Your task to perform on an android device: Find coffee shops on Maps Image 0: 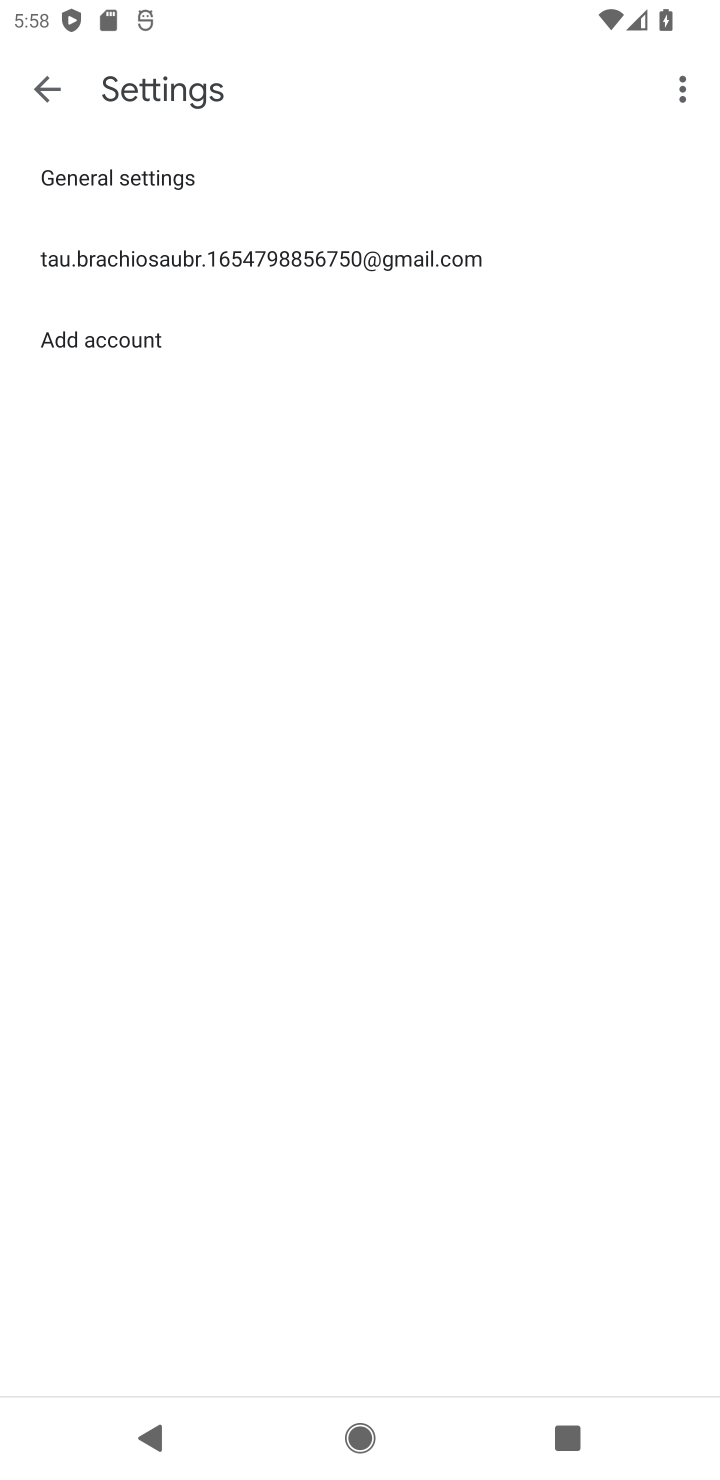
Step 0: press home button
Your task to perform on an android device: Find coffee shops on Maps Image 1: 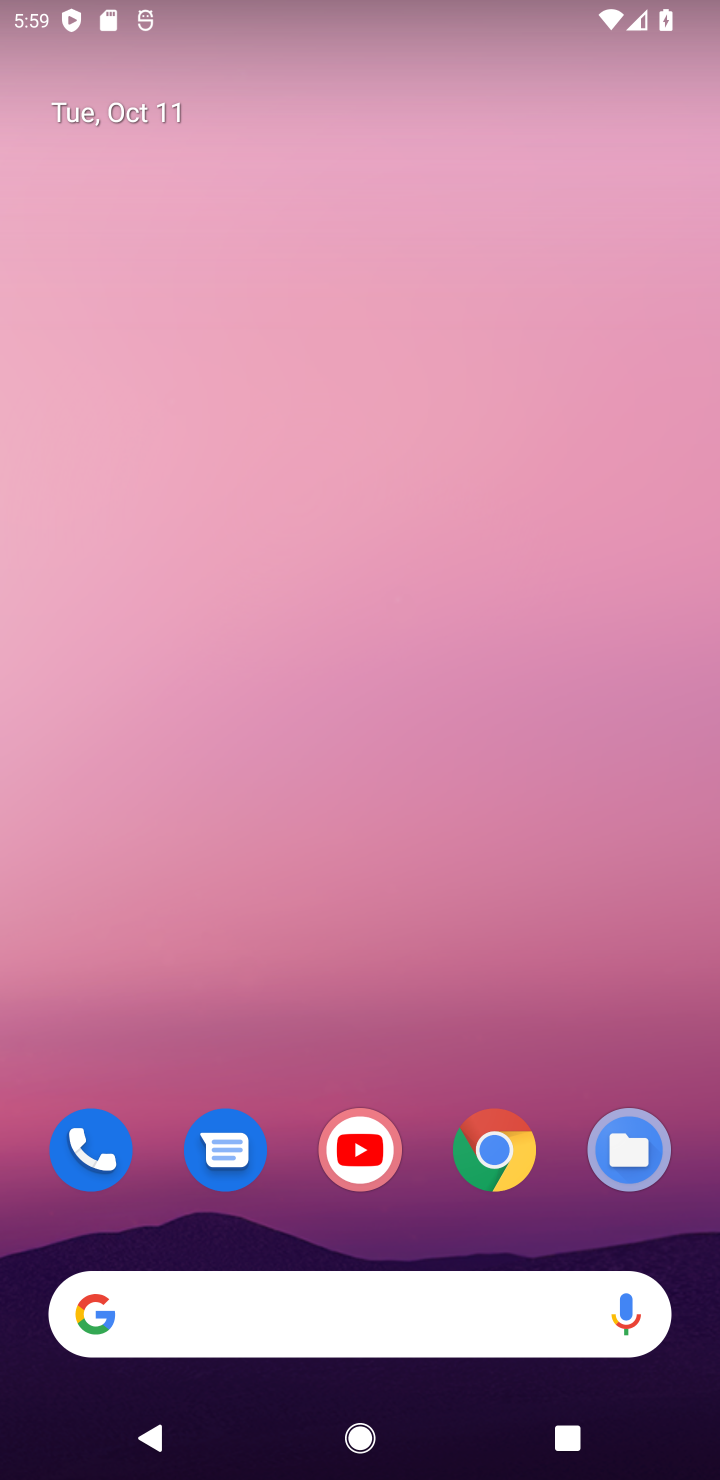
Step 1: drag from (423, 1065) to (402, 48)
Your task to perform on an android device: Find coffee shops on Maps Image 2: 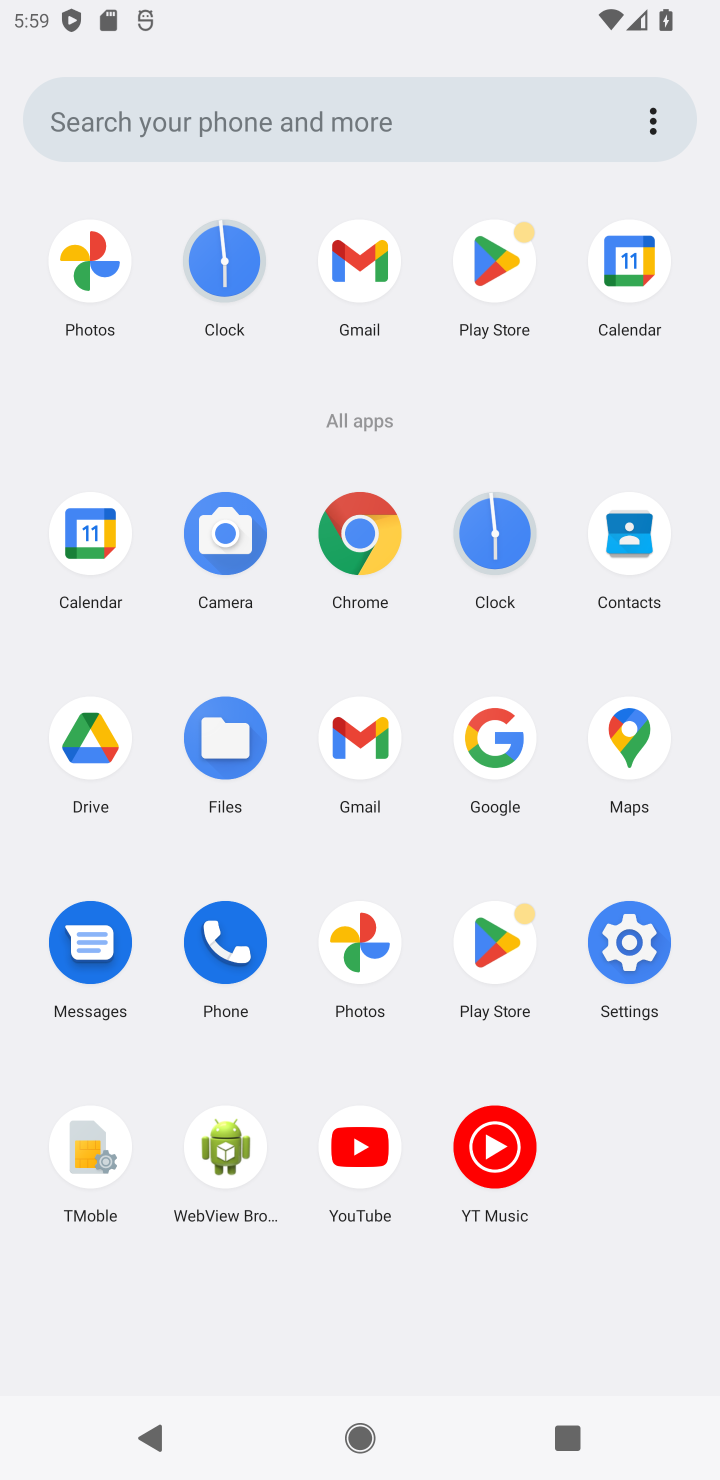
Step 2: click (636, 742)
Your task to perform on an android device: Find coffee shops on Maps Image 3: 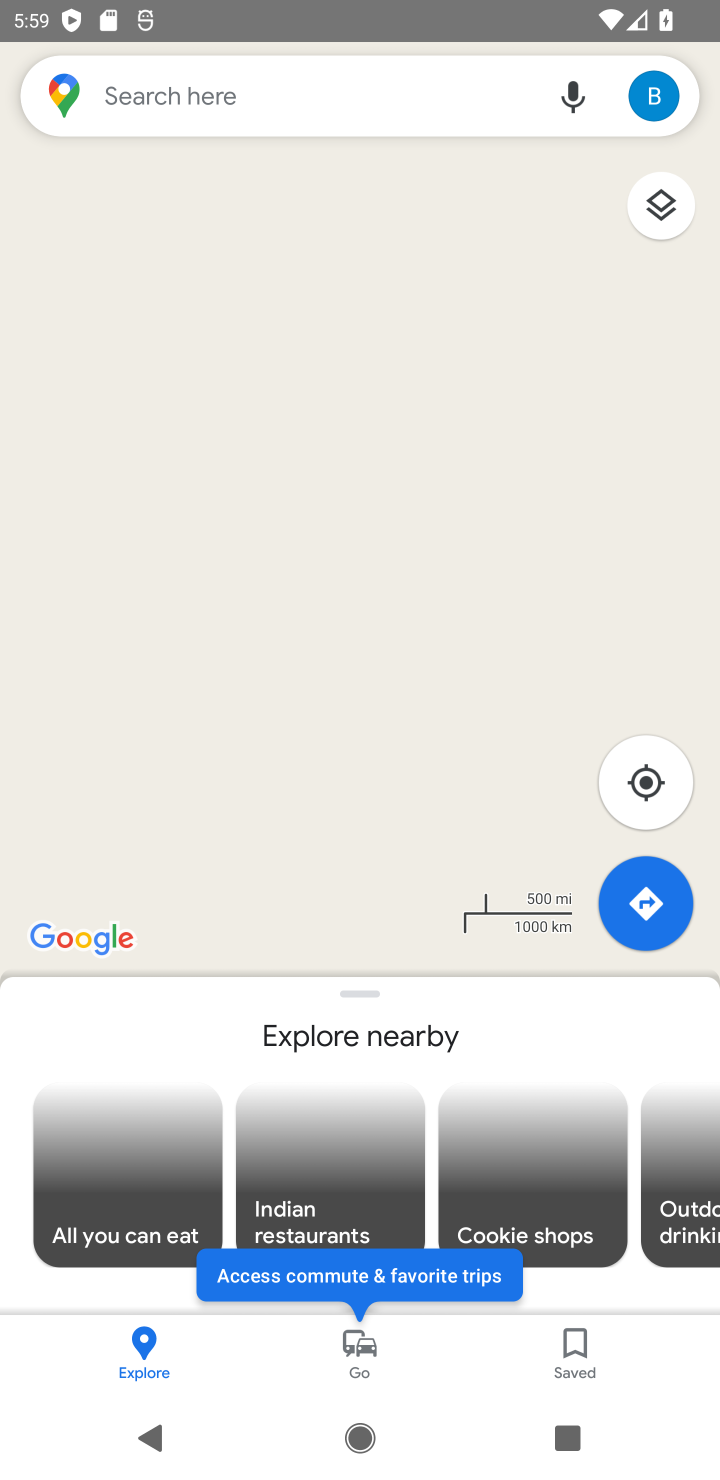
Step 3: click (189, 108)
Your task to perform on an android device: Find coffee shops on Maps Image 4: 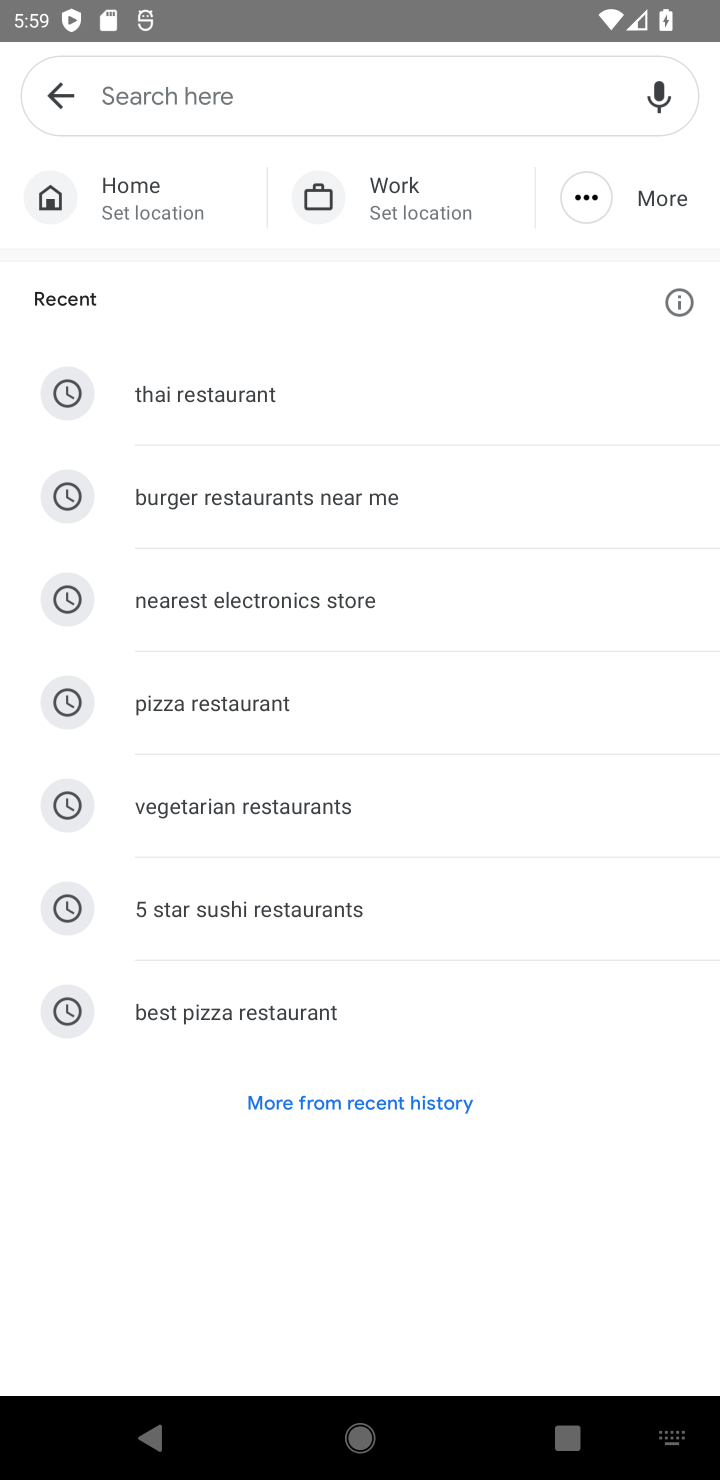
Step 4: type "coffee shop"
Your task to perform on an android device: Find coffee shops on Maps Image 5: 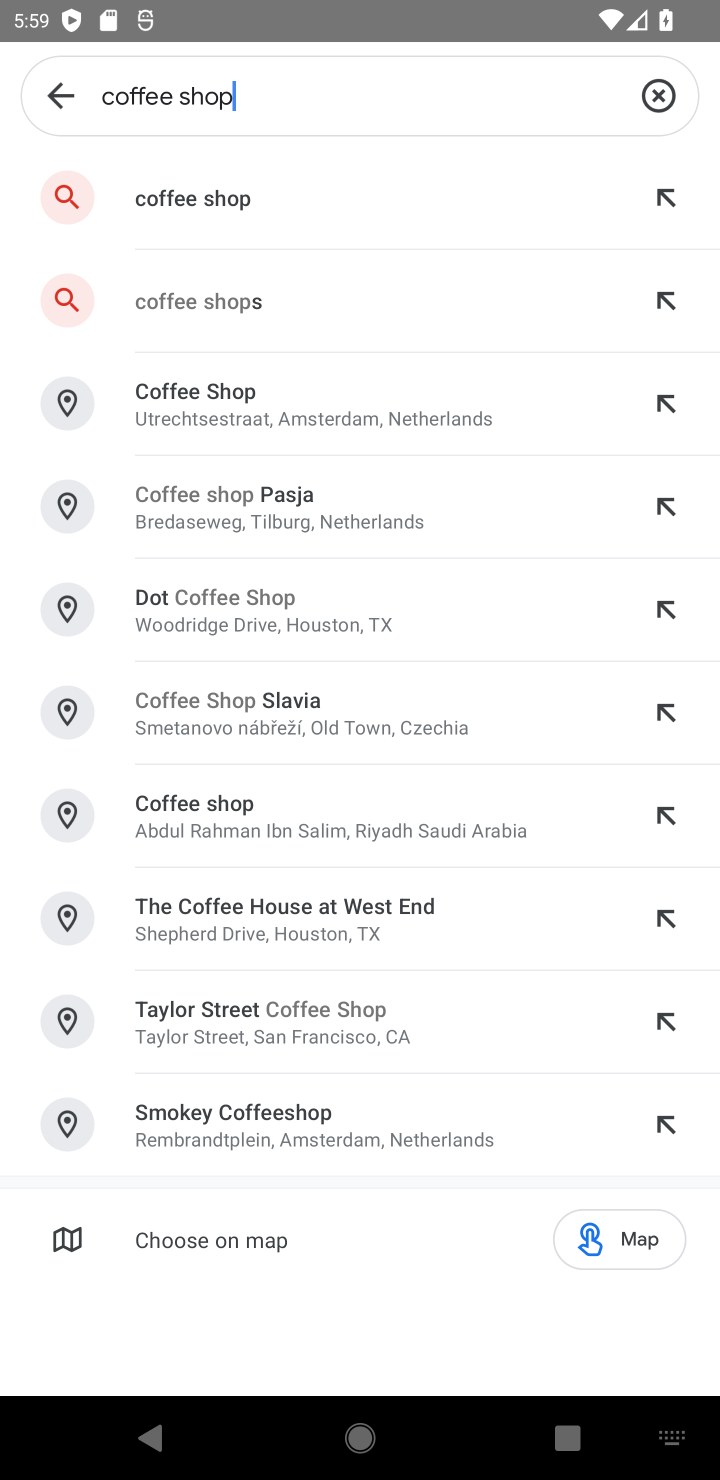
Step 5: click (217, 306)
Your task to perform on an android device: Find coffee shops on Maps Image 6: 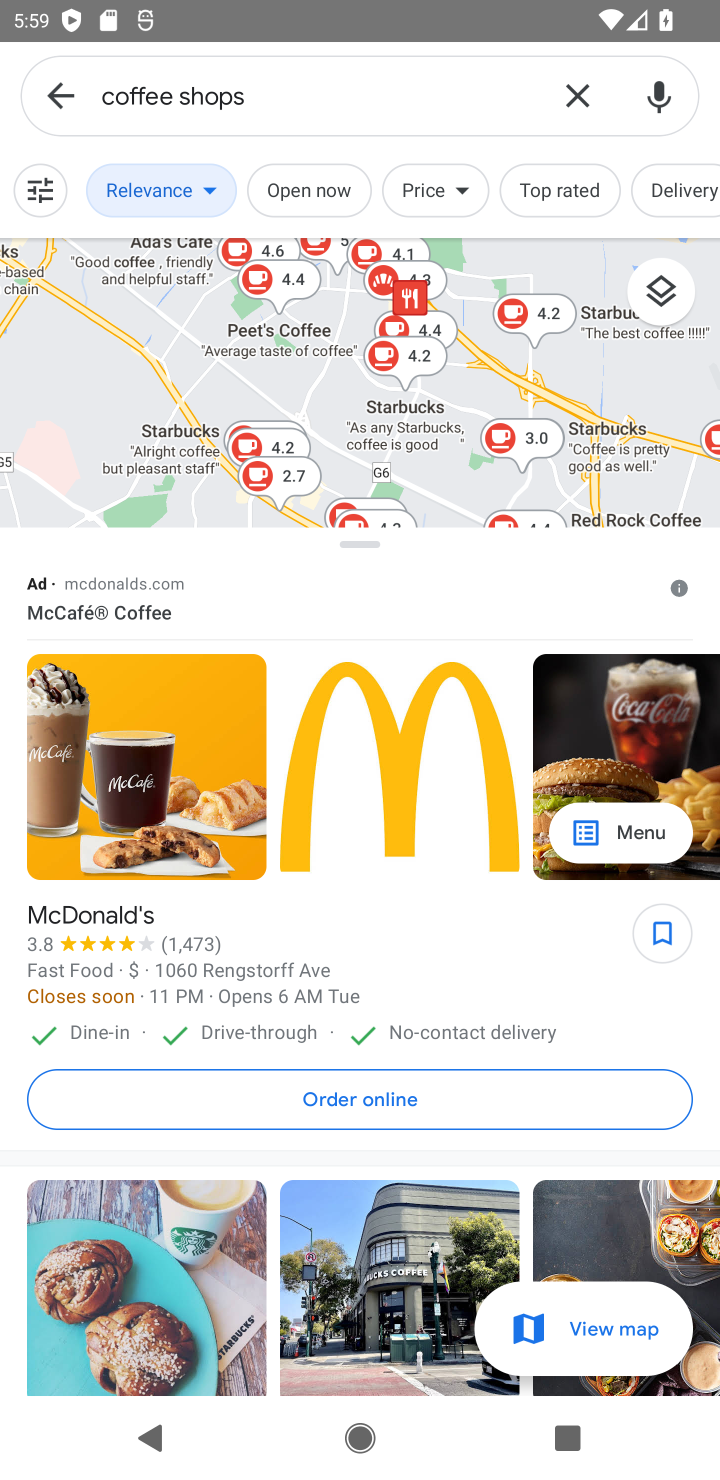
Step 6: task complete